Your task to perform on an android device: install app "Messenger Lite" Image 0: 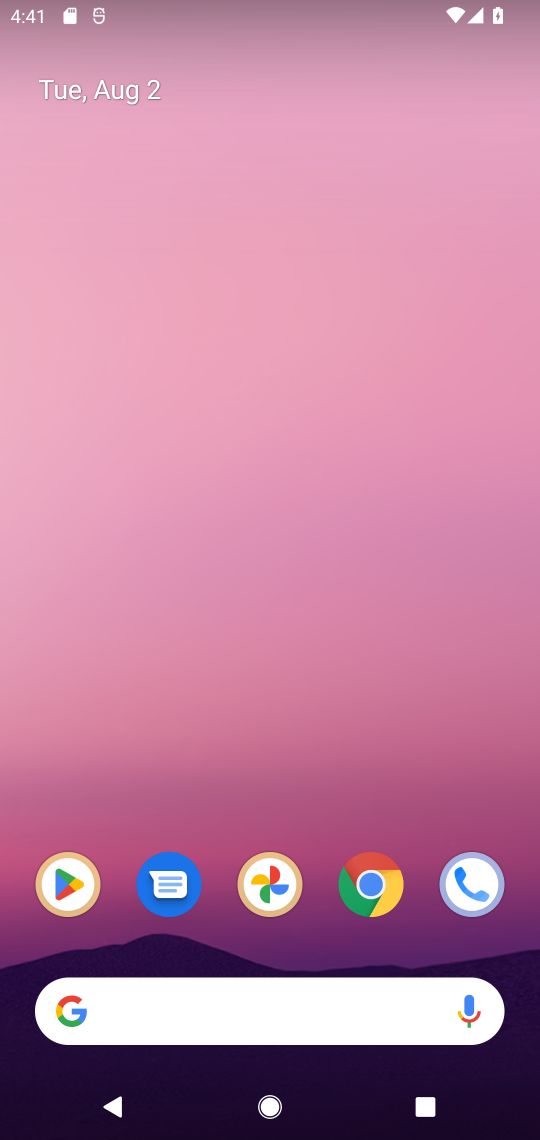
Step 0: press home button
Your task to perform on an android device: install app "Messenger Lite" Image 1: 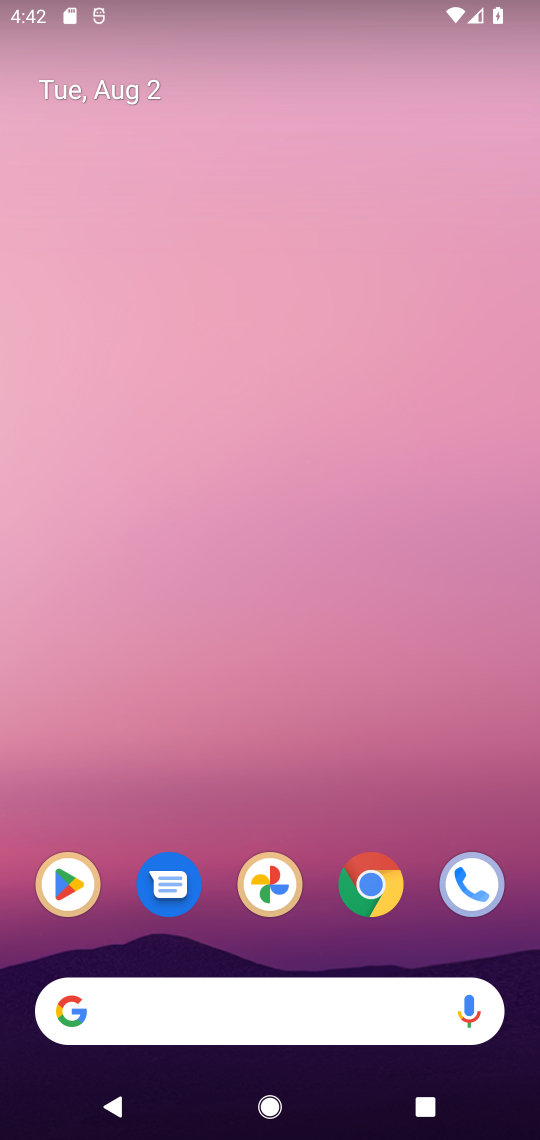
Step 1: click (70, 882)
Your task to perform on an android device: install app "Messenger Lite" Image 2: 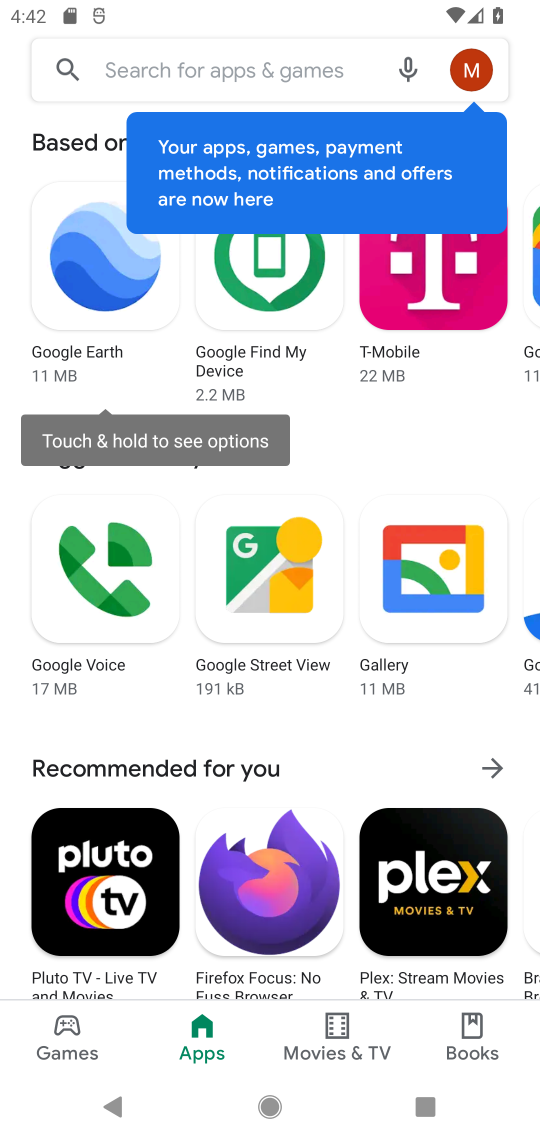
Step 2: click (123, 61)
Your task to perform on an android device: install app "Messenger Lite" Image 3: 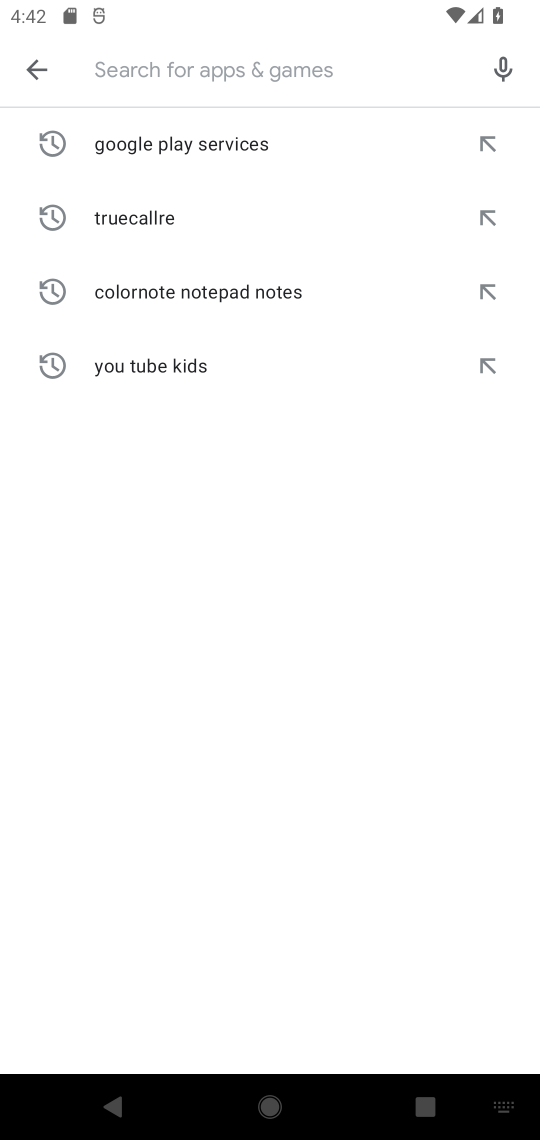
Step 3: type " "Messenger Lite"
Your task to perform on an android device: install app "Messenger Lite" Image 4: 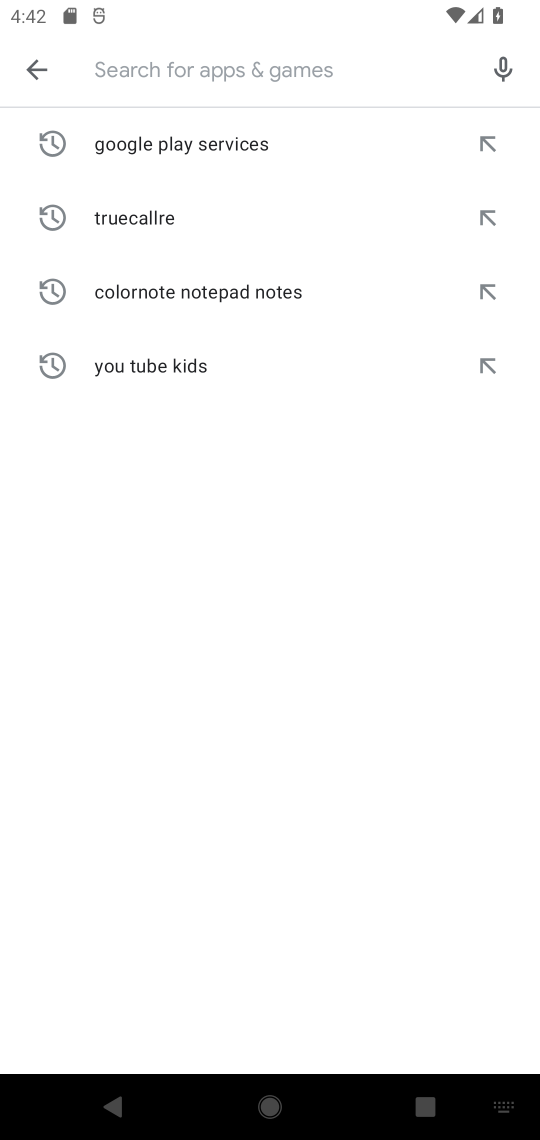
Step 4: type ""
Your task to perform on an android device: install app "Messenger Lite" Image 5: 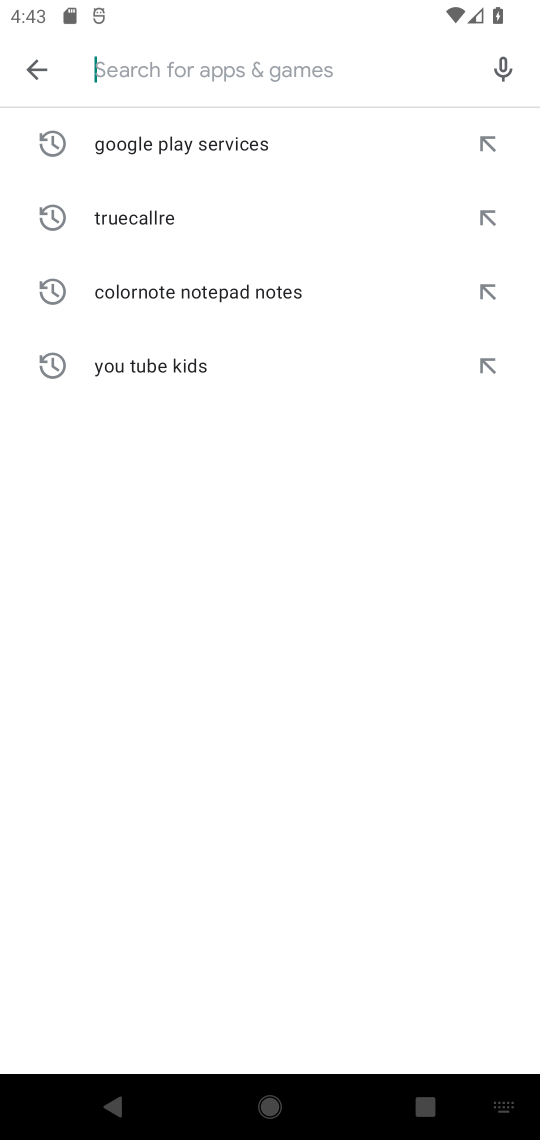
Step 5: type "Messenger Lite"
Your task to perform on an android device: install app "Messenger Lite" Image 6: 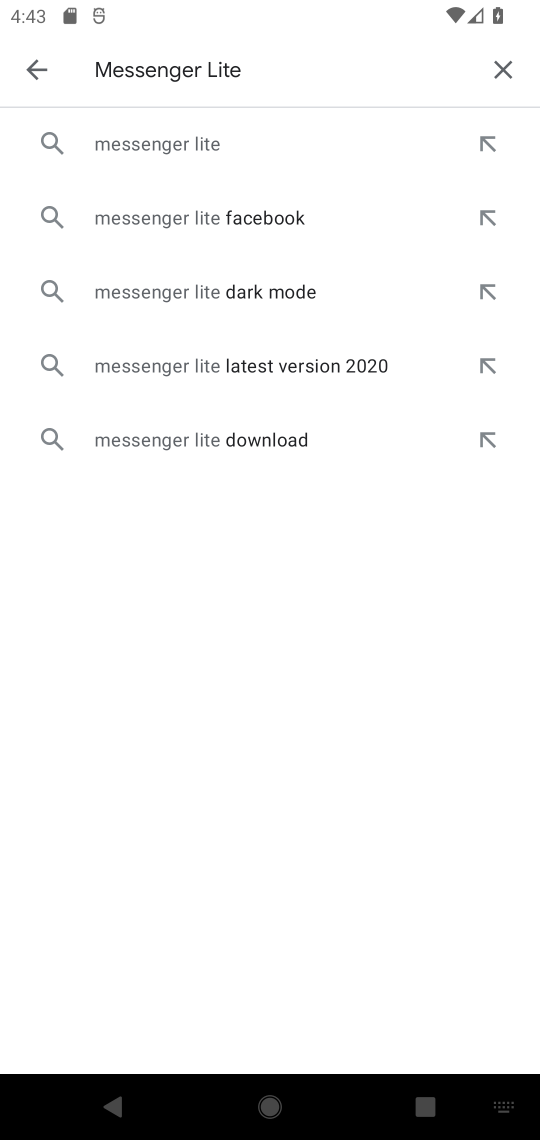
Step 6: click (246, 152)
Your task to perform on an android device: install app "Messenger Lite" Image 7: 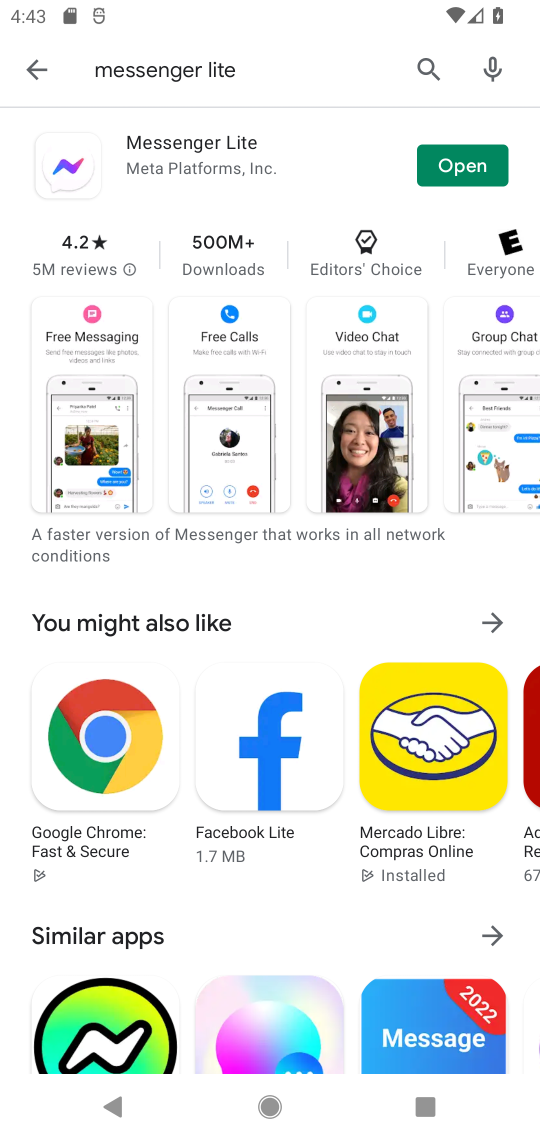
Step 7: task complete